Your task to perform on an android device: Open the Play Movies app and select the watchlist tab. Image 0: 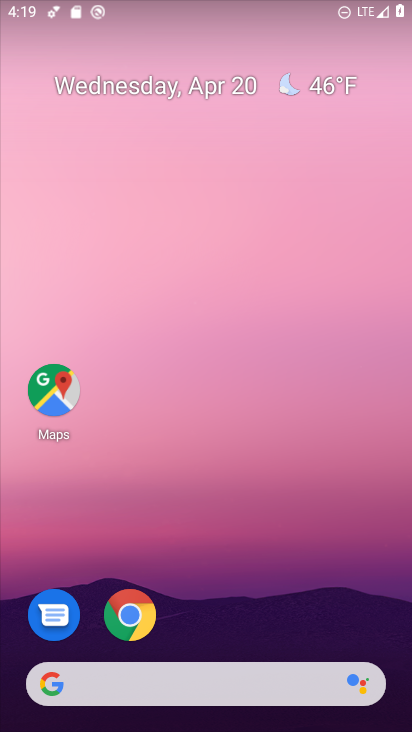
Step 0: drag from (285, 482) to (348, 70)
Your task to perform on an android device: Open the Play Movies app and select the watchlist tab. Image 1: 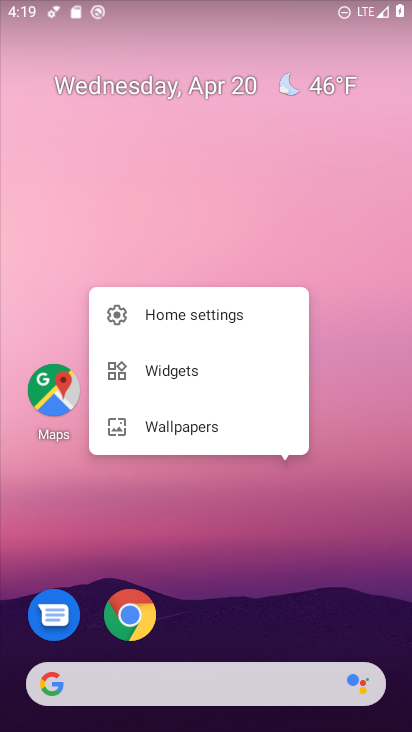
Step 1: click (255, 528)
Your task to perform on an android device: Open the Play Movies app and select the watchlist tab. Image 2: 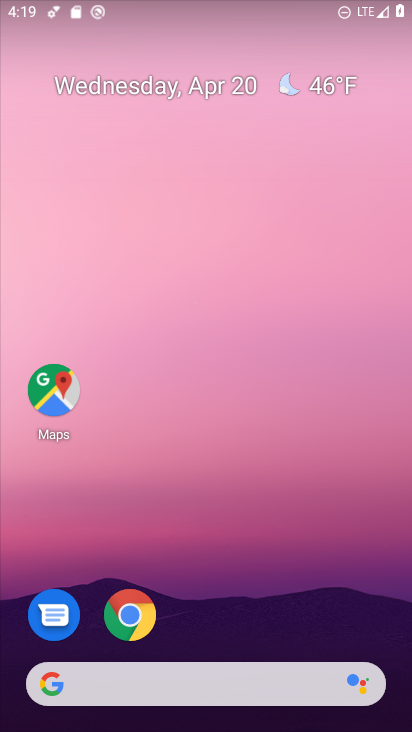
Step 2: drag from (235, 525) to (362, 61)
Your task to perform on an android device: Open the Play Movies app and select the watchlist tab. Image 3: 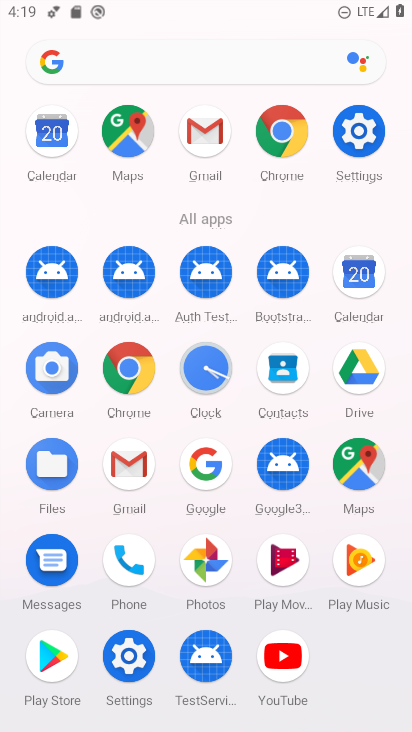
Step 3: click (280, 567)
Your task to perform on an android device: Open the Play Movies app and select the watchlist tab. Image 4: 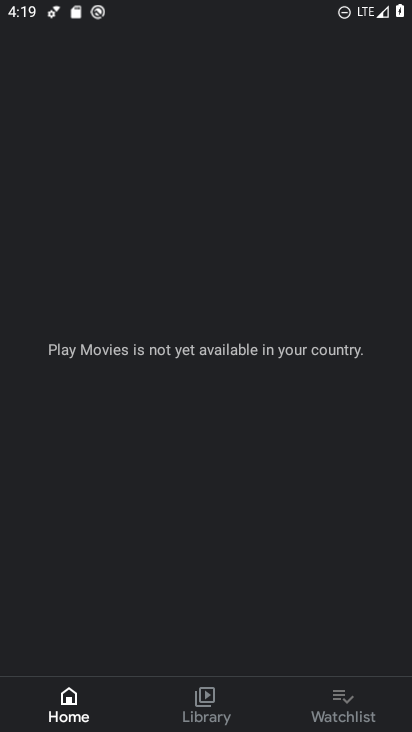
Step 4: click (321, 704)
Your task to perform on an android device: Open the Play Movies app and select the watchlist tab. Image 5: 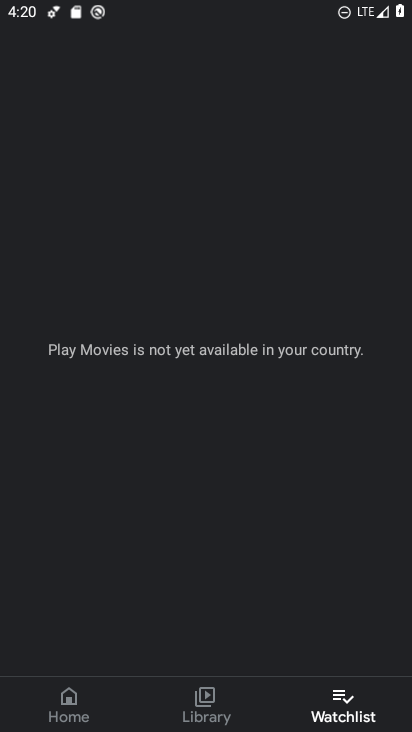
Step 5: task complete